Your task to perform on an android device: open app "McDonald's" (install if not already installed) Image 0: 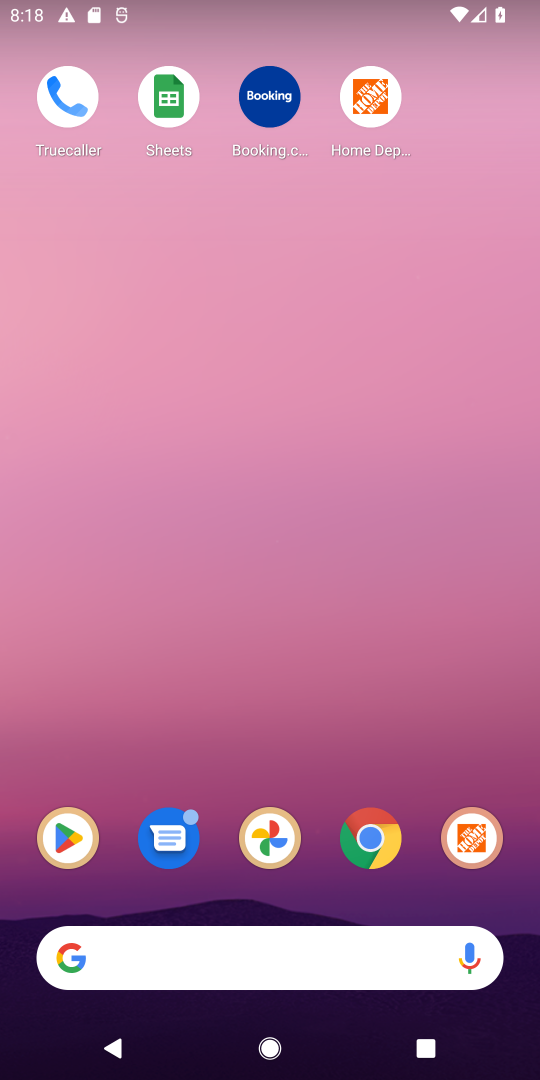
Step 0: drag from (278, 941) to (135, 21)
Your task to perform on an android device: open app "McDonald's" (install if not already installed) Image 1: 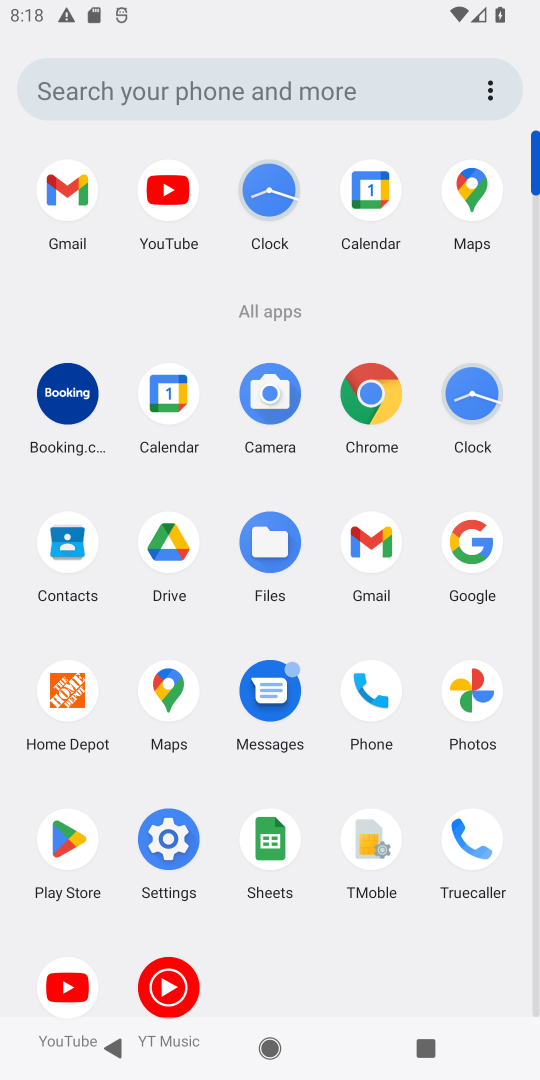
Step 1: click (84, 845)
Your task to perform on an android device: open app "McDonald's" (install if not already installed) Image 2: 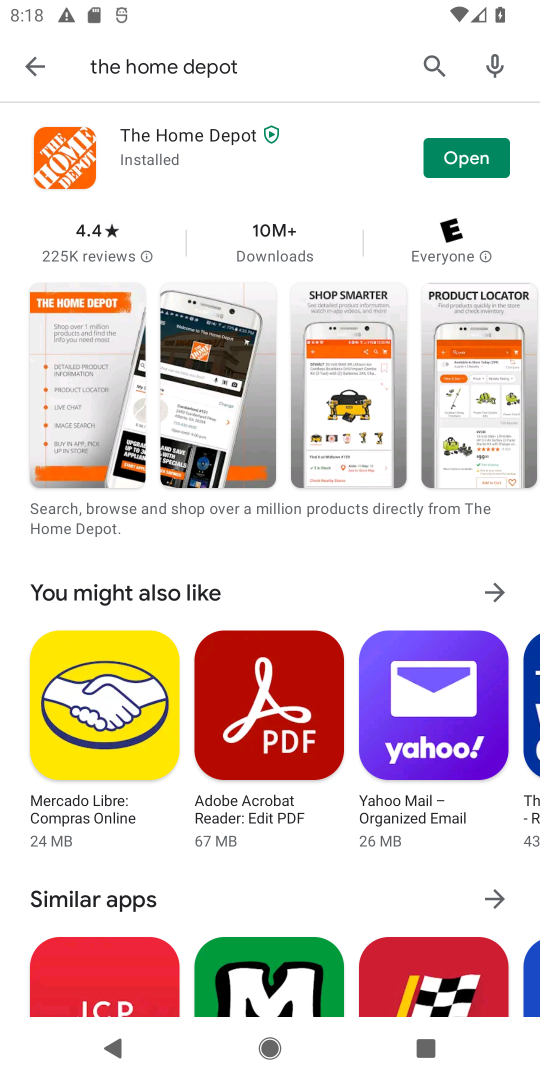
Step 2: click (429, 63)
Your task to perform on an android device: open app "McDonald's" (install if not already installed) Image 3: 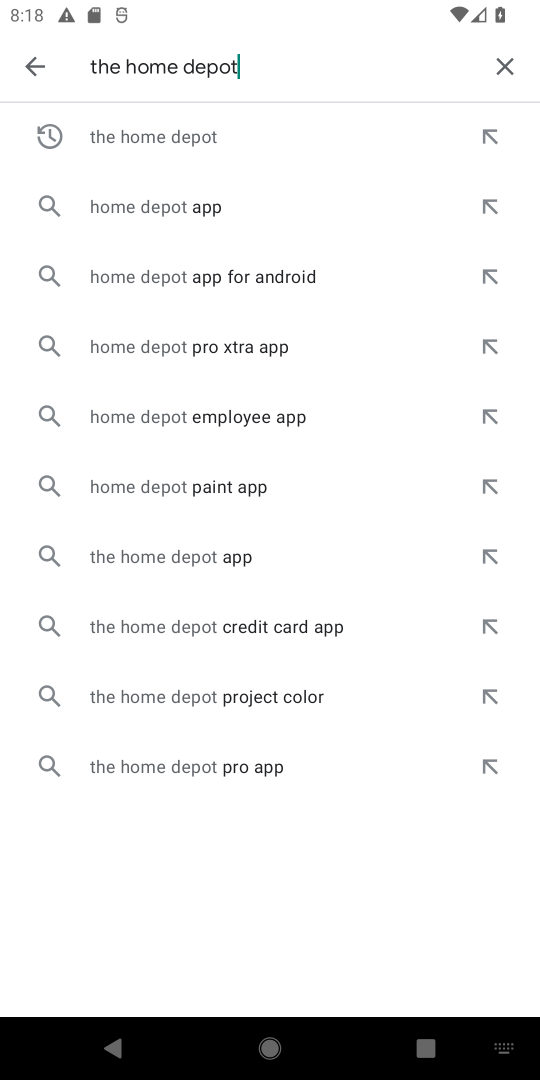
Step 3: click (504, 66)
Your task to perform on an android device: open app "McDonald's" (install if not already installed) Image 4: 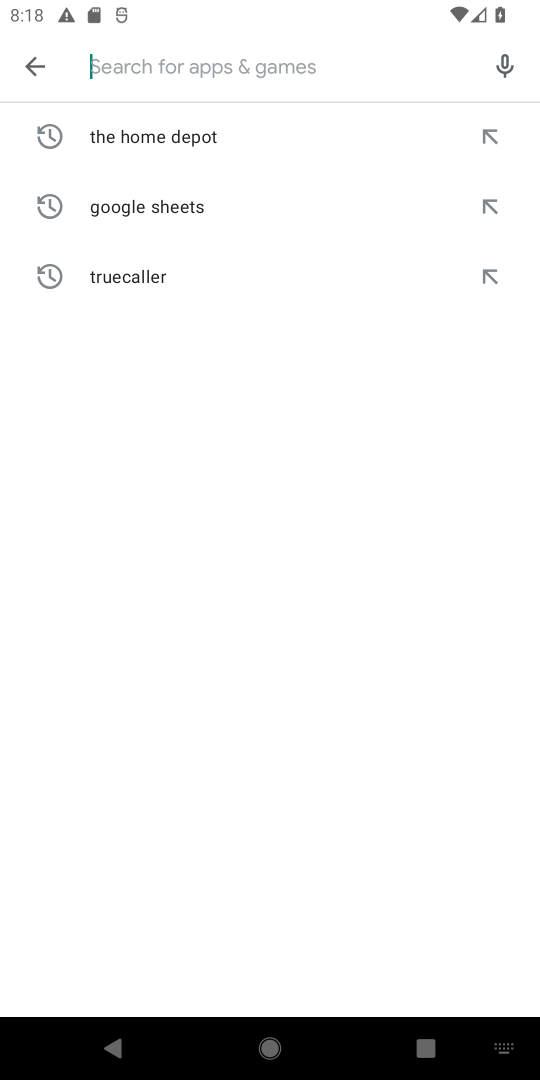
Step 4: type "mcdonalds"
Your task to perform on an android device: open app "McDonald's" (install if not already installed) Image 5: 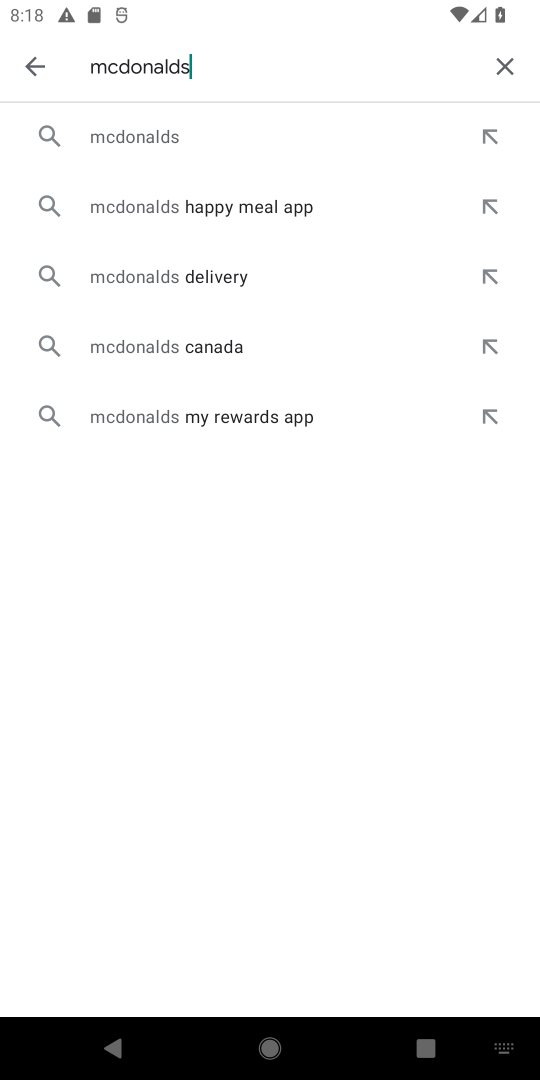
Step 5: click (249, 137)
Your task to perform on an android device: open app "McDonald's" (install if not already installed) Image 6: 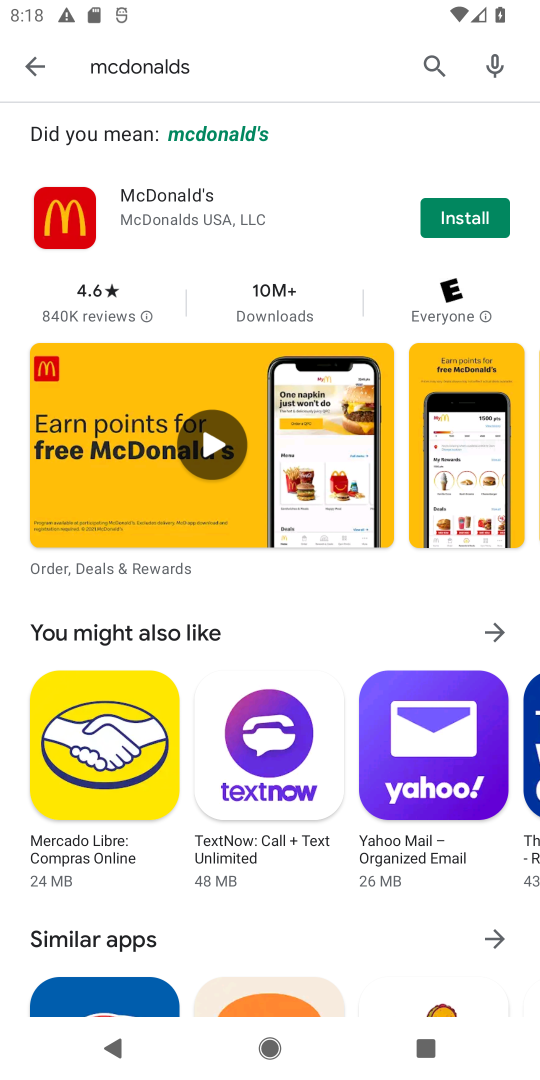
Step 6: click (469, 198)
Your task to perform on an android device: open app "McDonald's" (install if not already installed) Image 7: 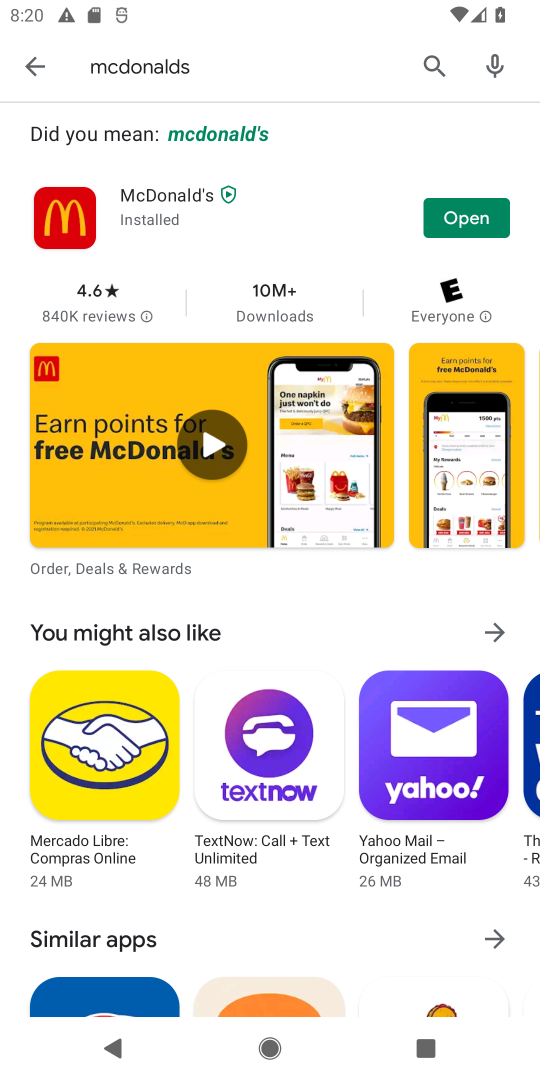
Step 7: click (479, 225)
Your task to perform on an android device: open app "McDonald's" (install if not already installed) Image 8: 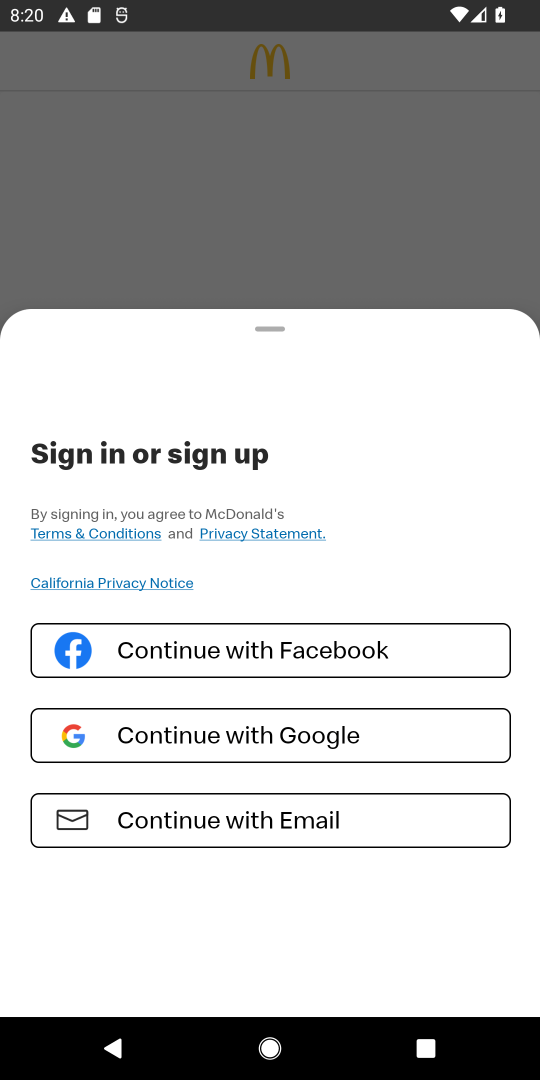
Step 8: task complete